Your task to perform on an android device: open a bookmark in the chrome app Image 0: 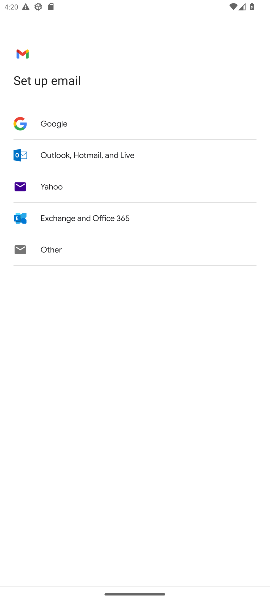
Step 0: press home button
Your task to perform on an android device: open a bookmark in the chrome app Image 1: 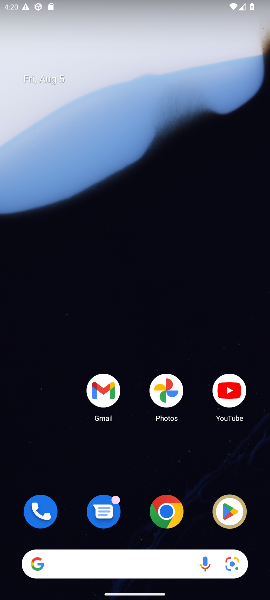
Step 1: click (161, 520)
Your task to perform on an android device: open a bookmark in the chrome app Image 2: 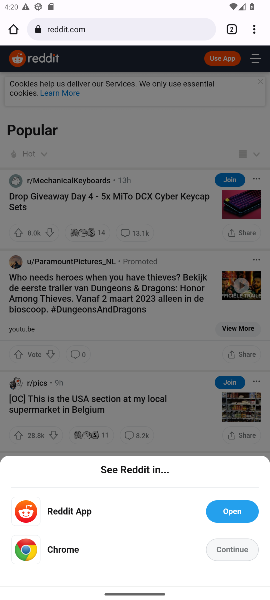
Step 2: click (194, 113)
Your task to perform on an android device: open a bookmark in the chrome app Image 3: 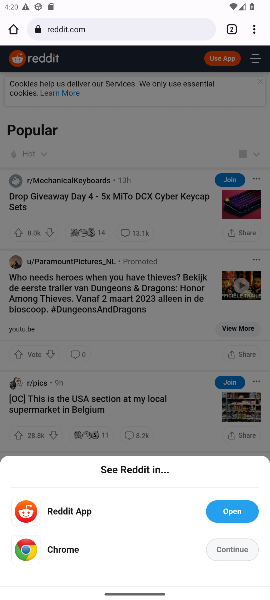
Step 3: click (258, 20)
Your task to perform on an android device: open a bookmark in the chrome app Image 4: 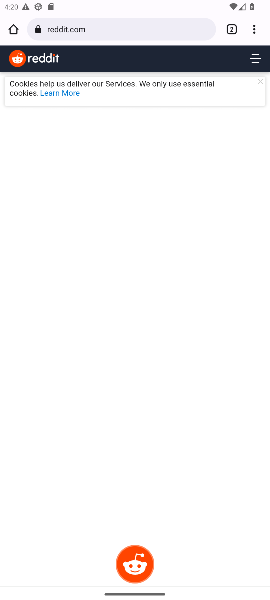
Step 4: task complete